Your task to perform on an android device: Search for Mexican restaurants on Maps Image 0: 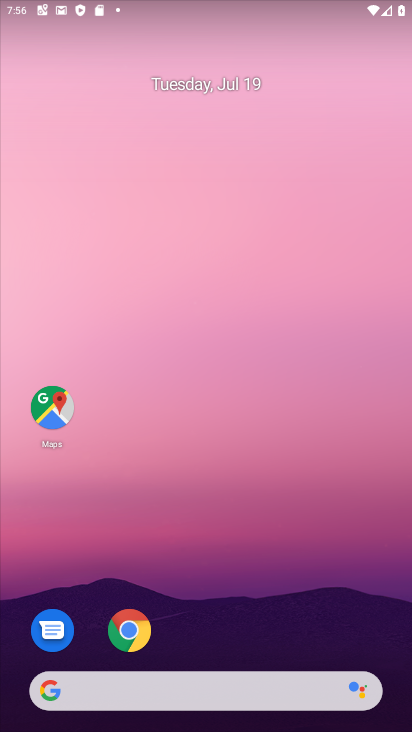
Step 0: click (51, 399)
Your task to perform on an android device: Search for Mexican restaurants on Maps Image 1: 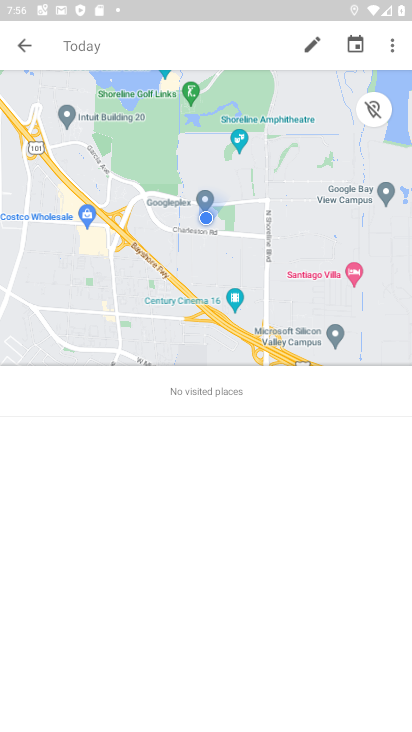
Step 1: click (20, 46)
Your task to perform on an android device: Search for Mexican restaurants on Maps Image 2: 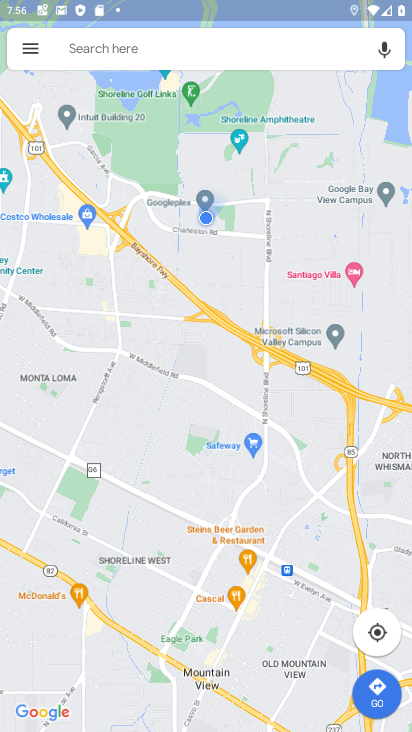
Step 2: click (156, 38)
Your task to perform on an android device: Search for Mexican restaurants on Maps Image 3: 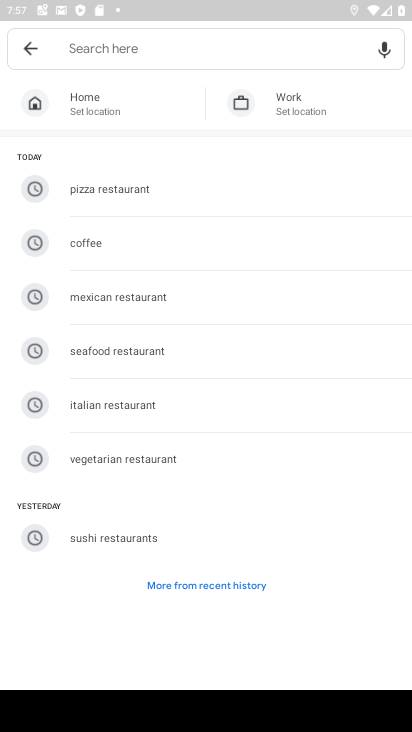
Step 3: type "mexican restaurants"
Your task to perform on an android device: Search for Mexican restaurants on Maps Image 4: 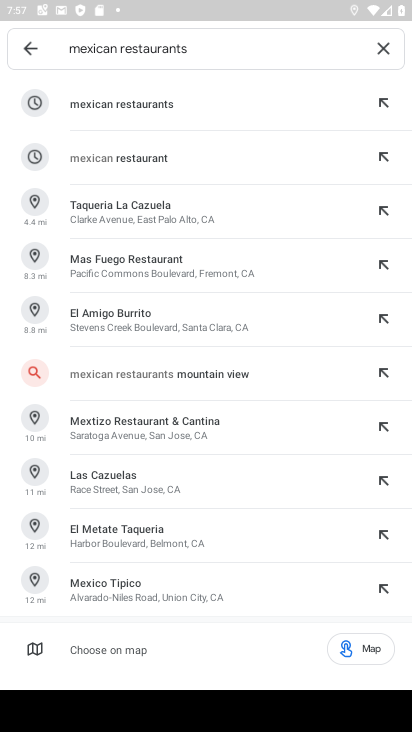
Step 4: click (95, 100)
Your task to perform on an android device: Search for Mexican restaurants on Maps Image 5: 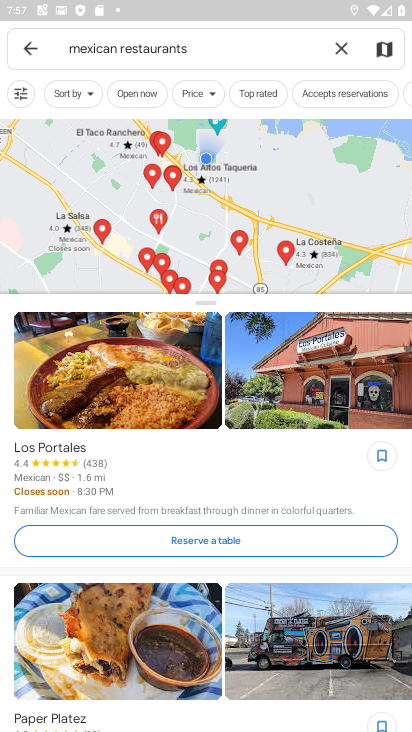
Step 5: task complete